Your task to perform on an android device: allow notifications from all sites in the chrome app Image 0: 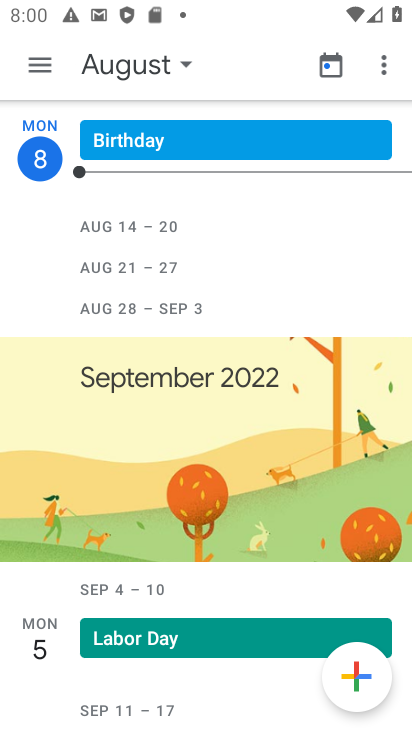
Step 0: press home button
Your task to perform on an android device: allow notifications from all sites in the chrome app Image 1: 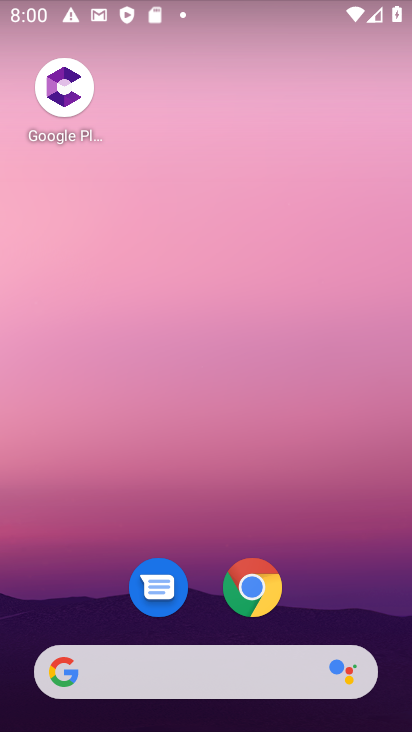
Step 1: click (271, 580)
Your task to perform on an android device: allow notifications from all sites in the chrome app Image 2: 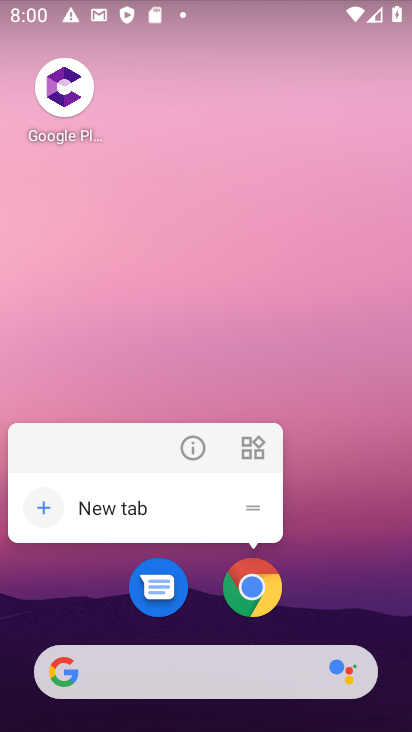
Step 2: click (269, 588)
Your task to perform on an android device: allow notifications from all sites in the chrome app Image 3: 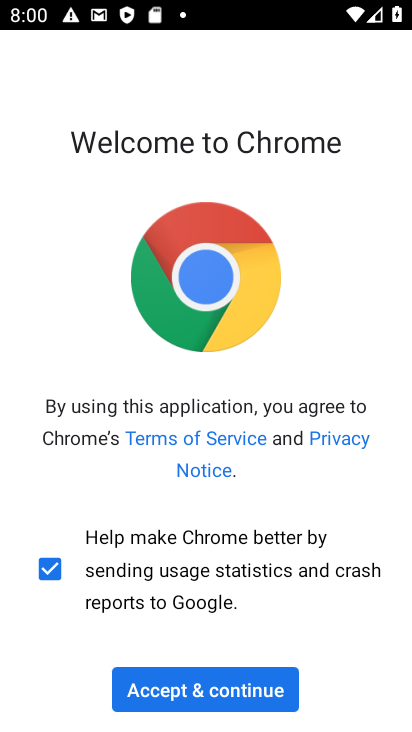
Step 3: click (187, 694)
Your task to perform on an android device: allow notifications from all sites in the chrome app Image 4: 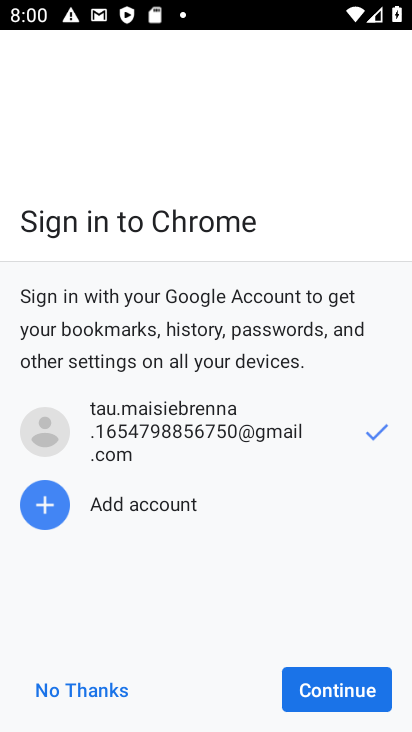
Step 4: click (326, 683)
Your task to perform on an android device: allow notifications from all sites in the chrome app Image 5: 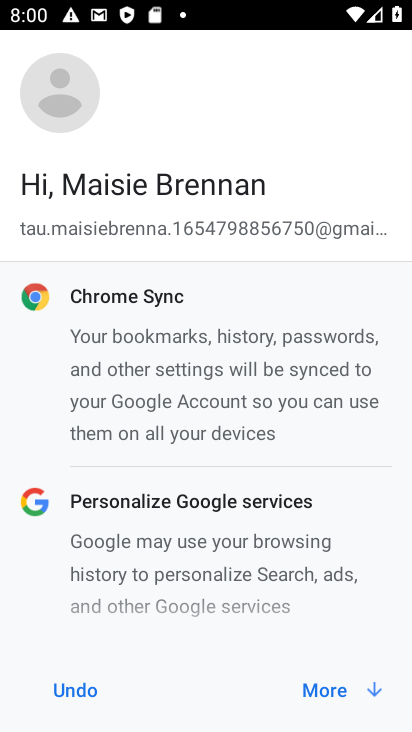
Step 5: click (321, 679)
Your task to perform on an android device: allow notifications from all sites in the chrome app Image 6: 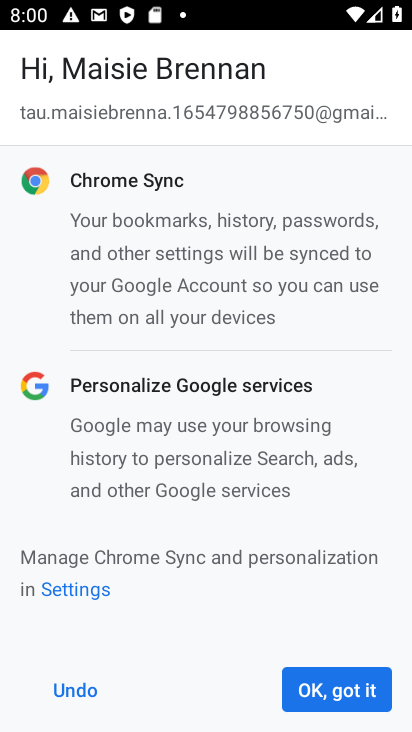
Step 6: click (321, 696)
Your task to perform on an android device: allow notifications from all sites in the chrome app Image 7: 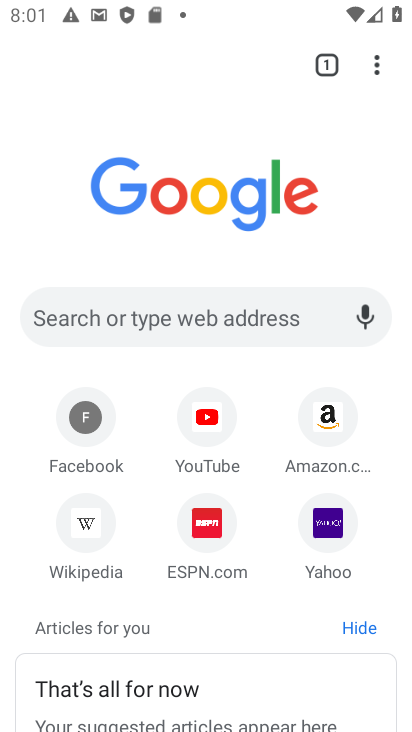
Step 7: click (370, 60)
Your task to perform on an android device: allow notifications from all sites in the chrome app Image 8: 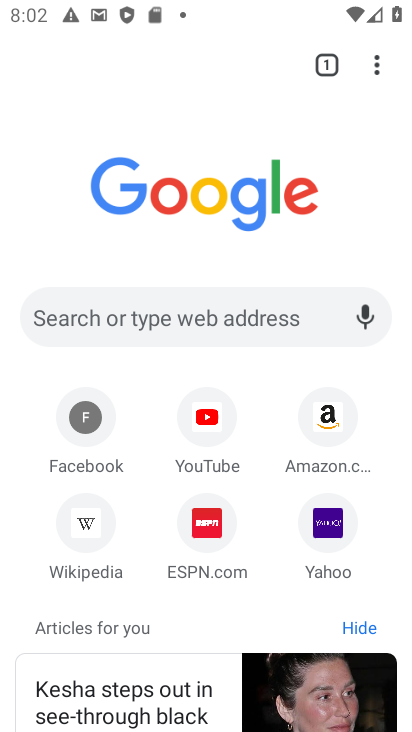
Step 8: click (379, 68)
Your task to perform on an android device: allow notifications from all sites in the chrome app Image 9: 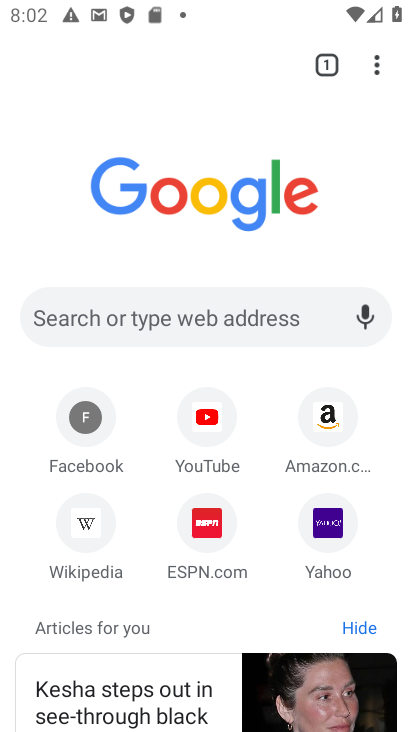
Step 9: click (373, 64)
Your task to perform on an android device: allow notifications from all sites in the chrome app Image 10: 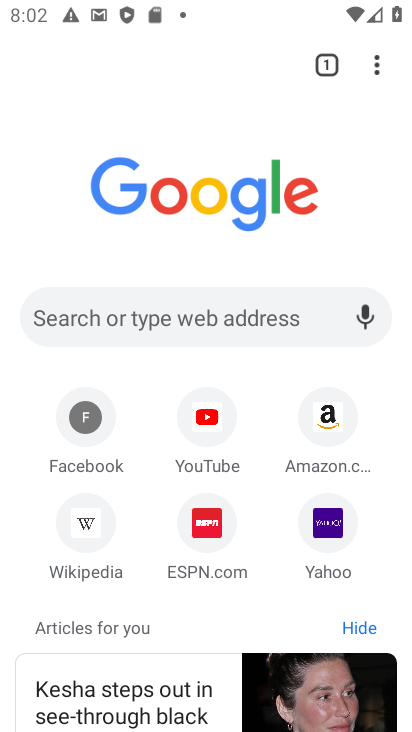
Step 10: click (371, 70)
Your task to perform on an android device: allow notifications from all sites in the chrome app Image 11: 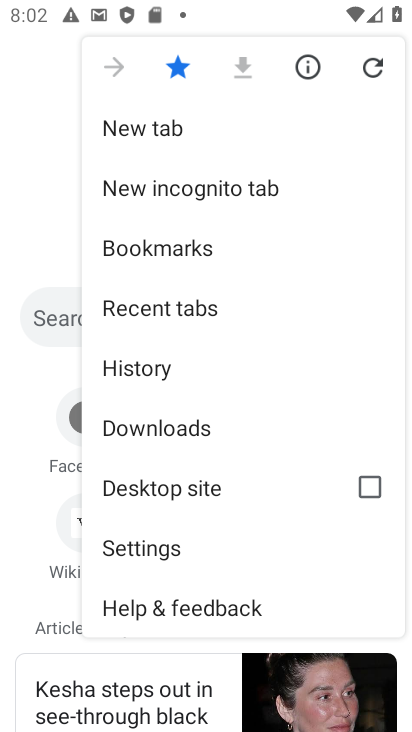
Step 11: click (150, 547)
Your task to perform on an android device: allow notifications from all sites in the chrome app Image 12: 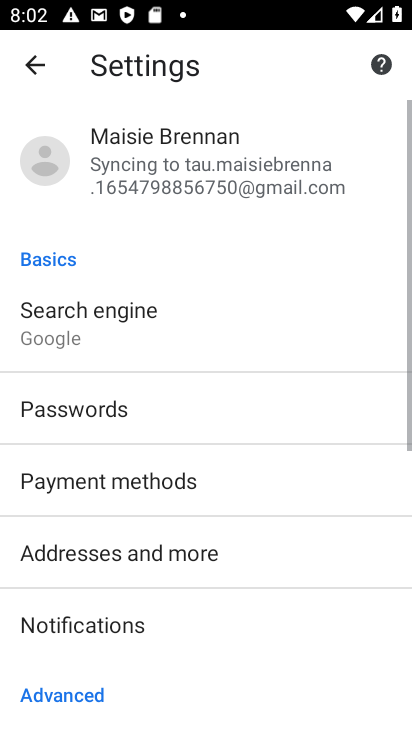
Step 12: drag from (98, 616) to (136, 165)
Your task to perform on an android device: allow notifications from all sites in the chrome app Image 13: 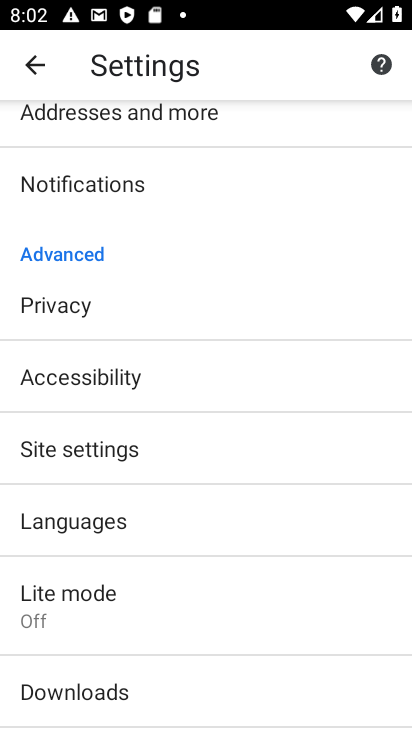
Step 13: click (56, 439)
Your task to perform on an android device: allow notifications from all sites in the chrome app Image 14: 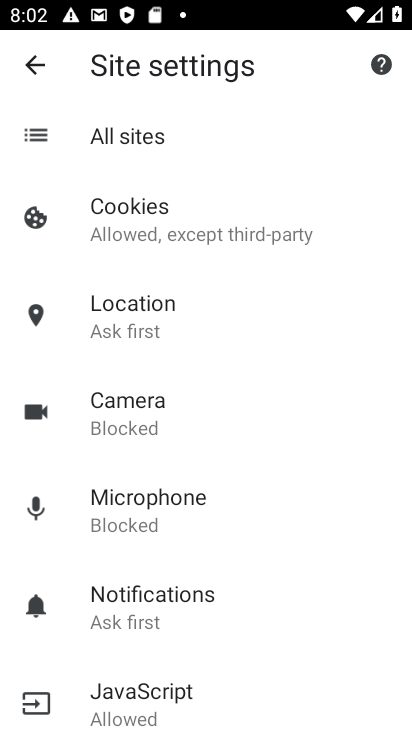
Step 14: click (144, 599)
Your task to perform on an android device: allow notifications from all sites in the chrome app Image 15: 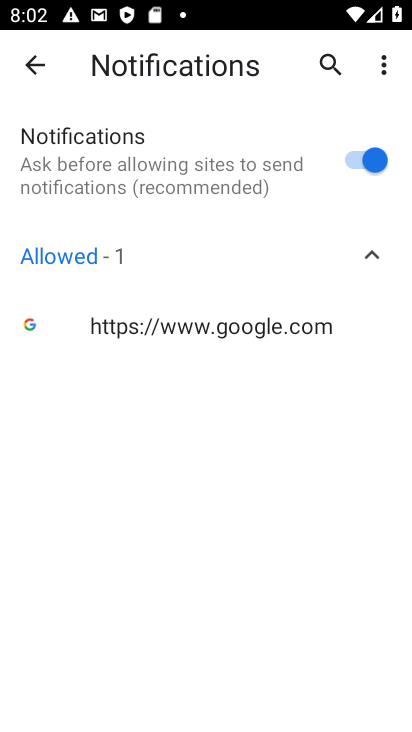
Step 15: task complete